Your task to perform on an android device: Search for the top rated book on goodreads. Image 0: 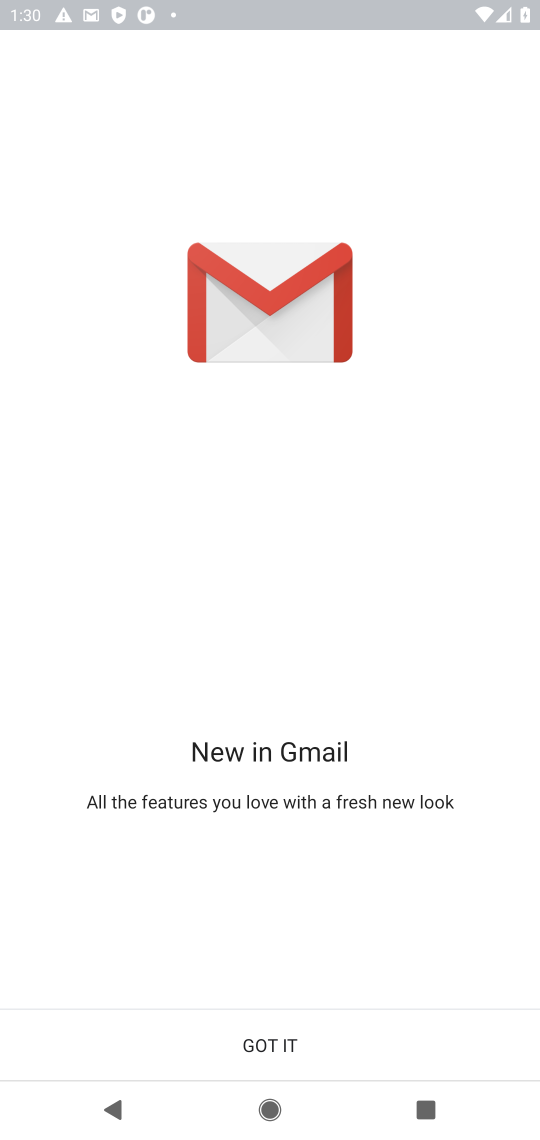
Step 0: press home button
Your task to perform on an android device: Search for the top rated book on goodreads. Image 1: 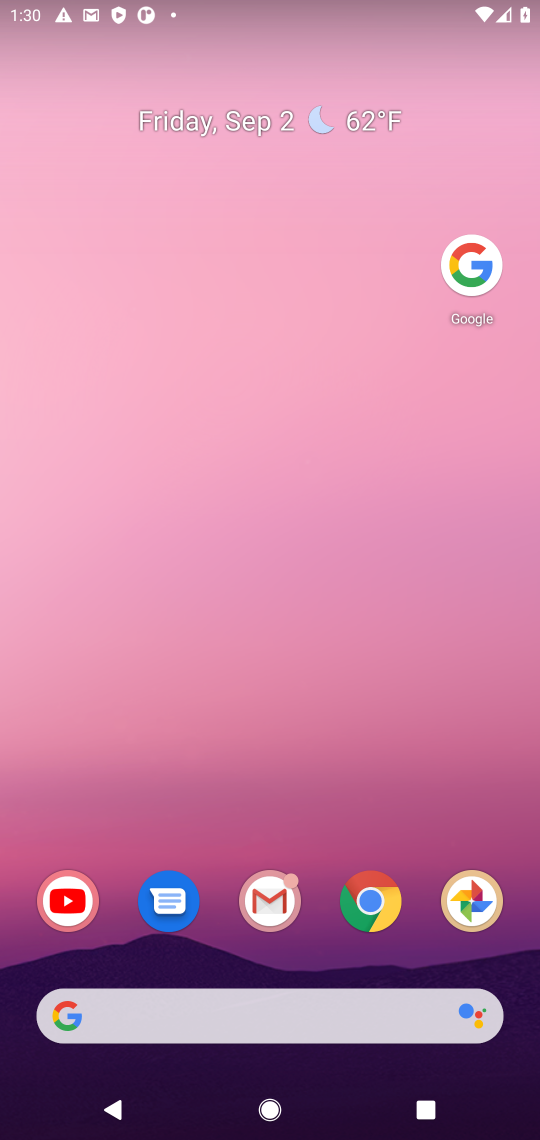
Step 1: drag from (230, 982) to (238, 456)
Your task to perform on an android device: Search for the top rated book on goodreads. Image 2: 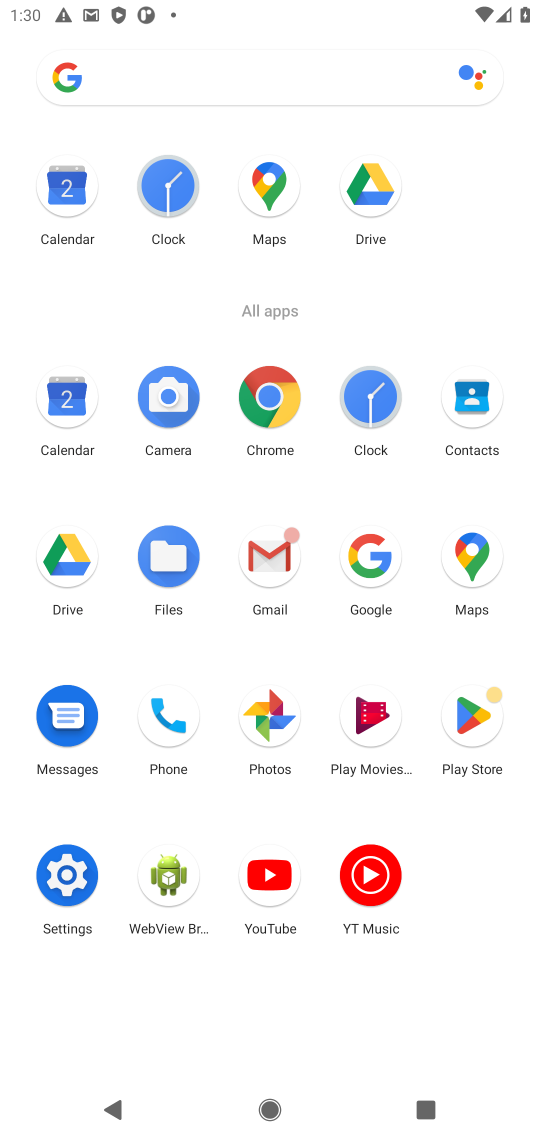
Step 2: click (361, 549)
Your task to perform on an android device: Search for the top rated book on goodreads. Image 3: 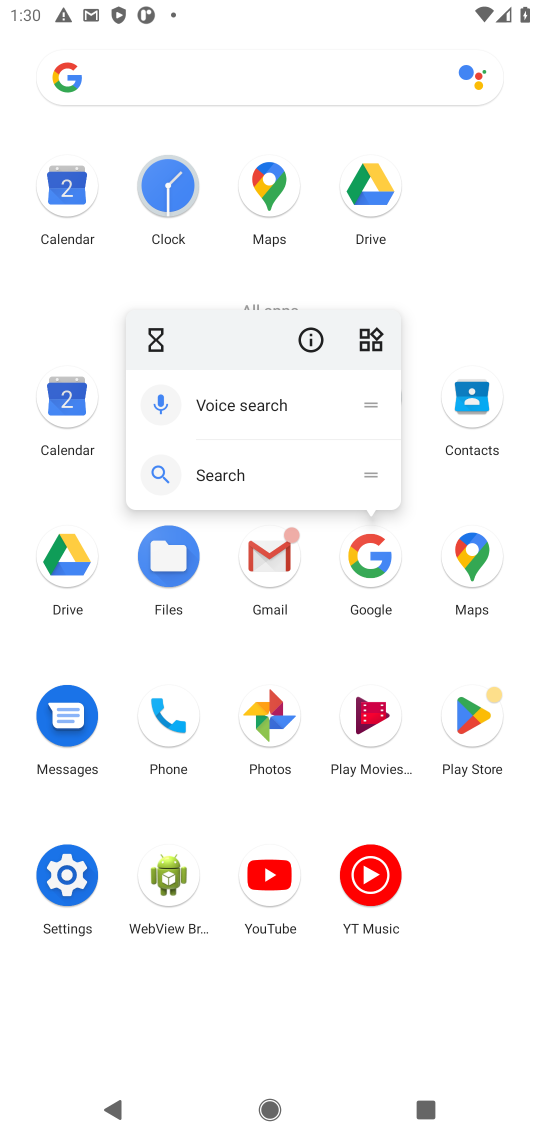
Step 3: click (358, 549)
Your task to perform on an android device: Search for the top rated book on goodreads. Image 4: 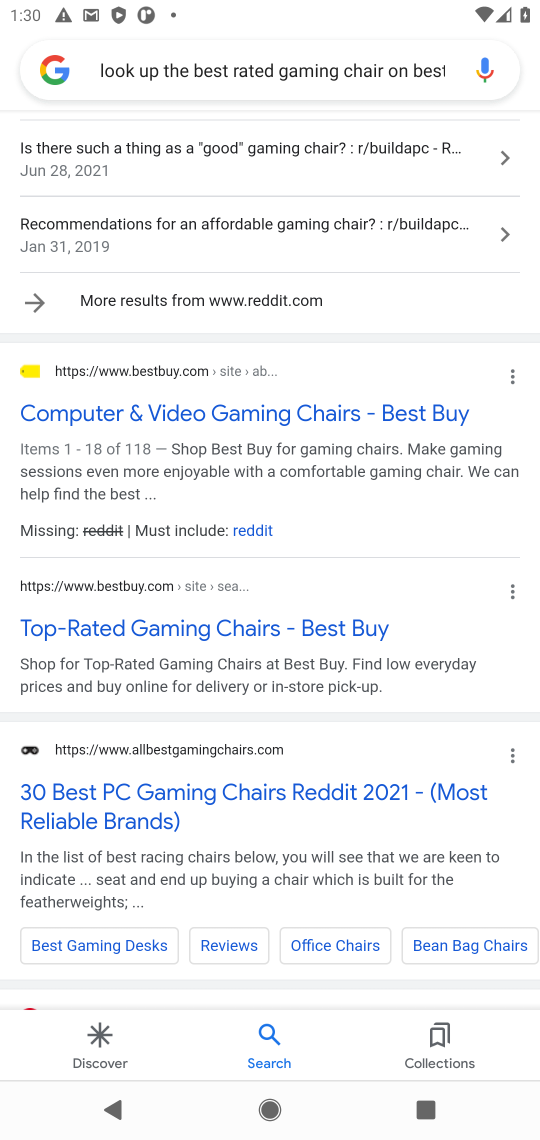
Step 4: drag from (289, 98) to (217, 1060)
Your task to perform on an android device: Search for the top rated book on goodreads. Image 5: 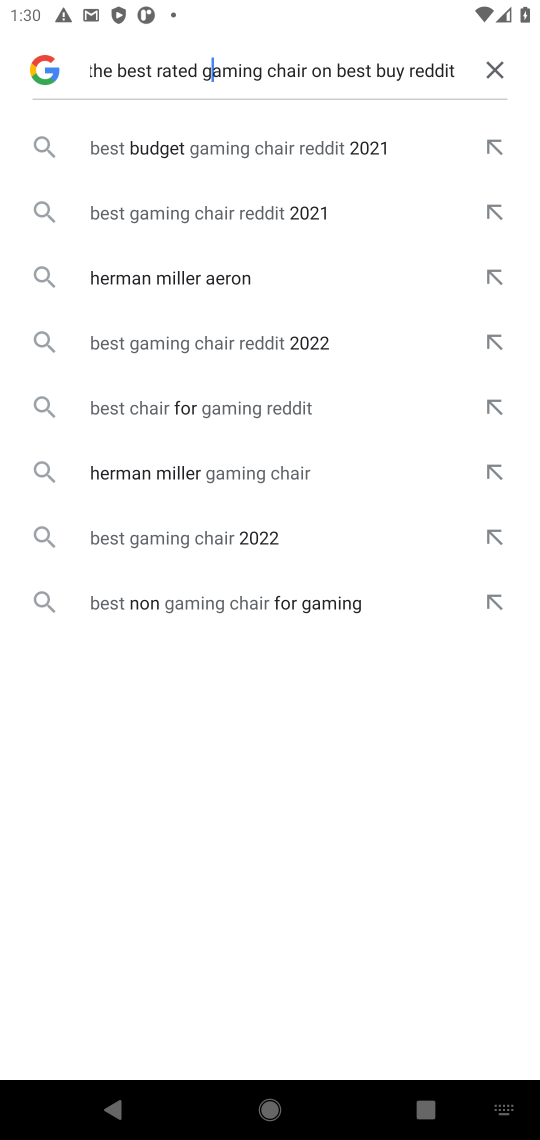
Step 5: click (501, 57)
Your task to perform on an android device: Search for the top rated book on goodreads. Image 6: 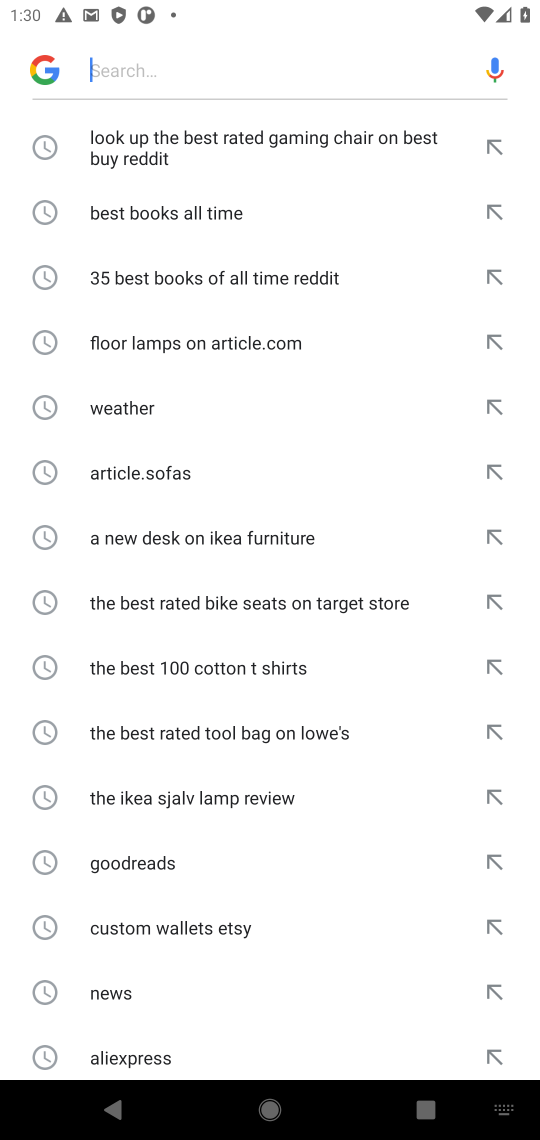
Step 6: click (204, 66)
Your task to perform on an android device: Search for the top rated book on goodreads. Image 7: 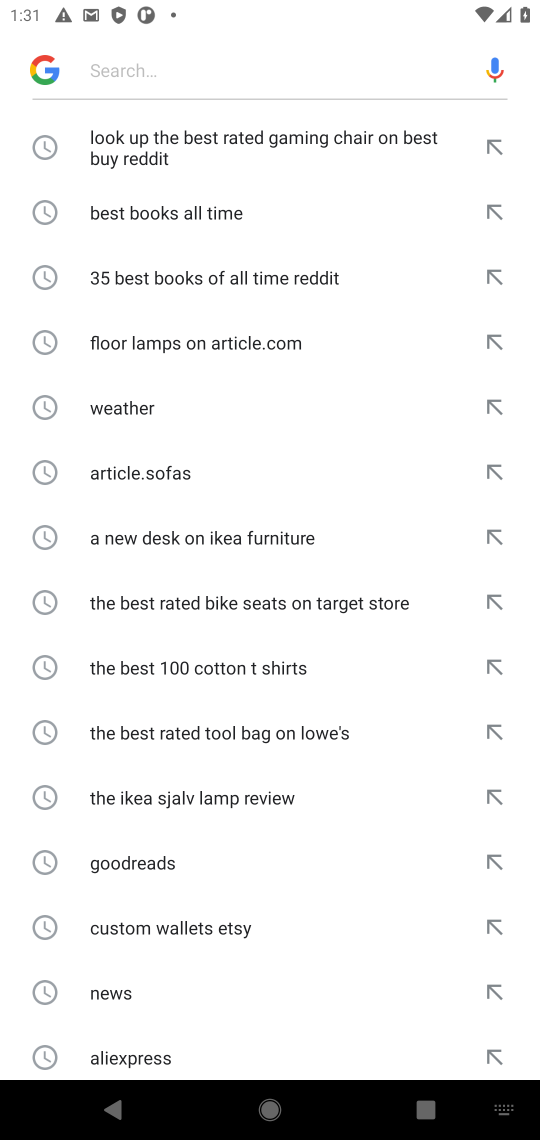
Step 7: type "the top rated book on goodreads "
Your task to perform on an android device: Search for the top rated book on goodreads. Image 8: 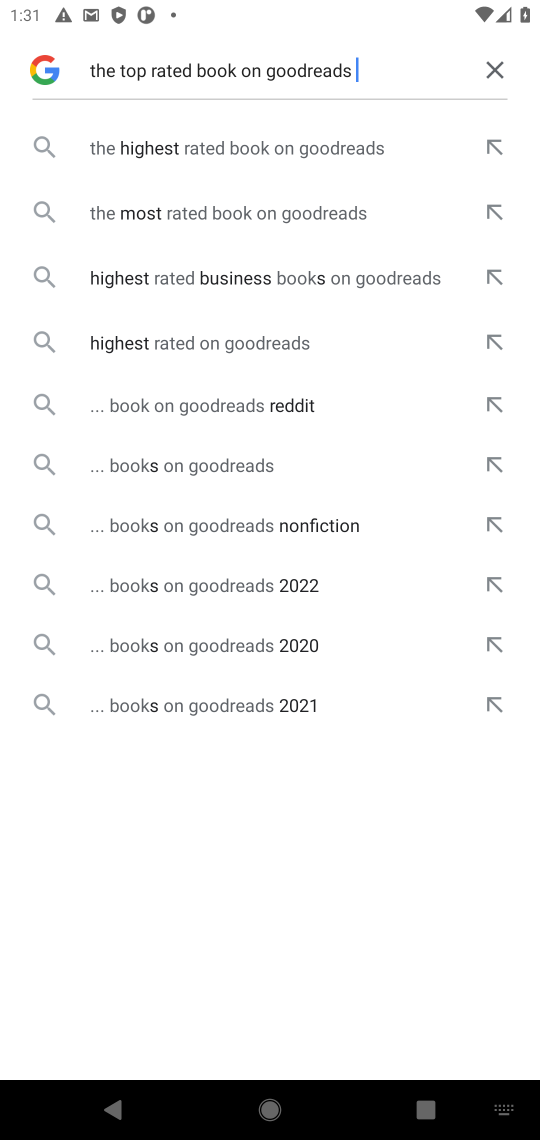
Step 8: click (275, 220)
Your task to perform on an android device: Search for the top rated book on goodreads. Image 9: 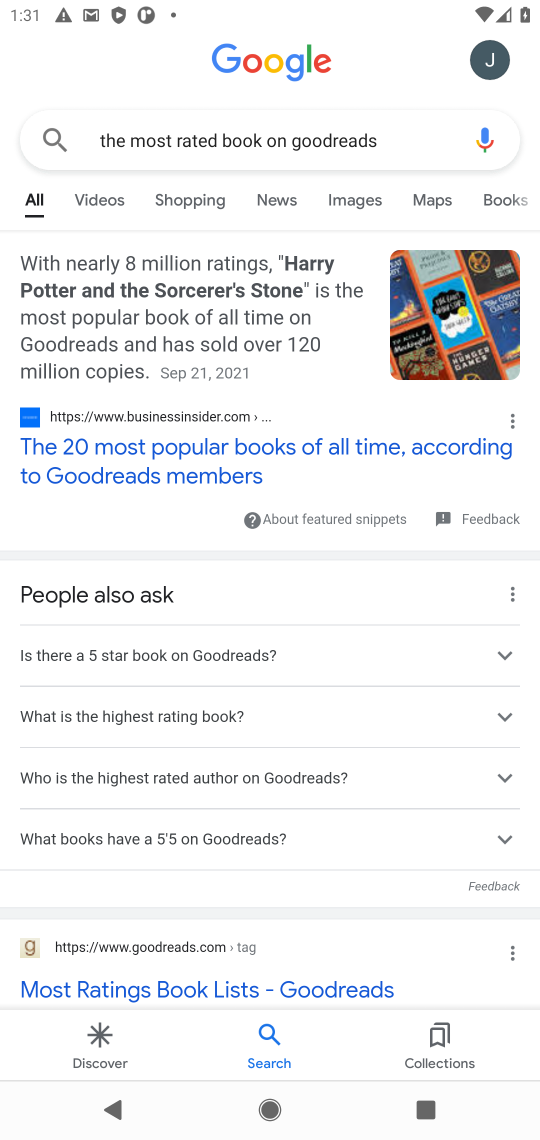
Step 9: drag from (213, 958) to (294, 302)
Your task to perform on an android device: Search for the top rated book on goodreads. Image 10: 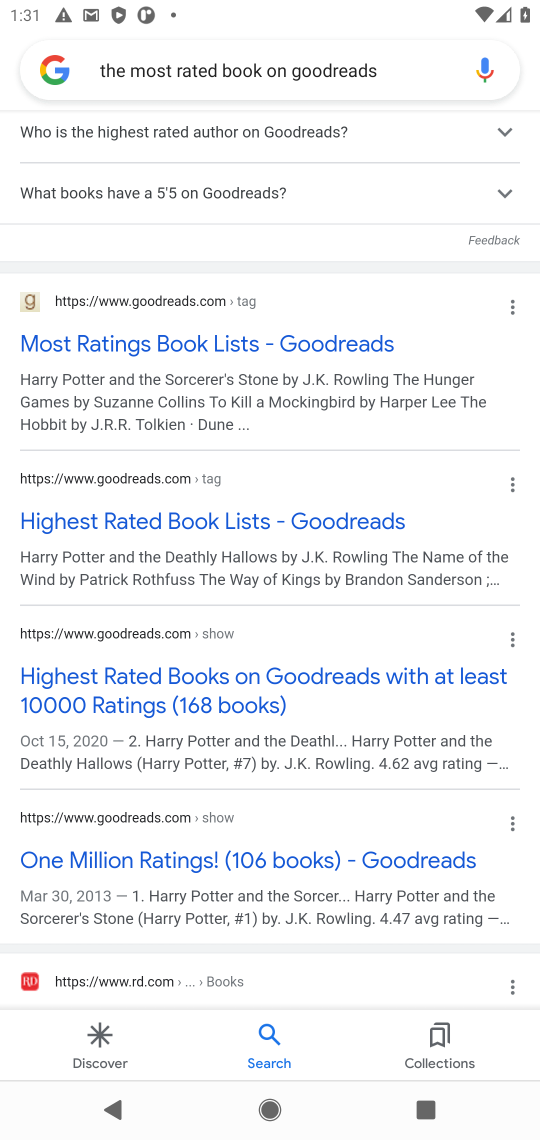
Step 10: click (273, 335)
Your task to perform on an android device: Search for the top rated book on goodreads. Image 11: 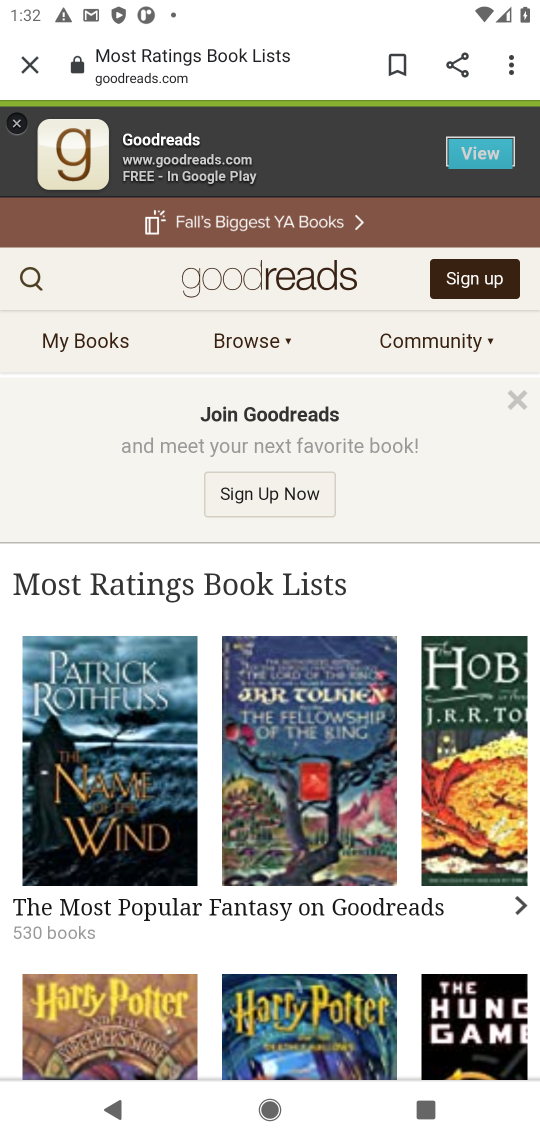
Step 11: click (17, 126)
Your task to perform on an android device: Search for the top rated book on goodreads. Image 12: 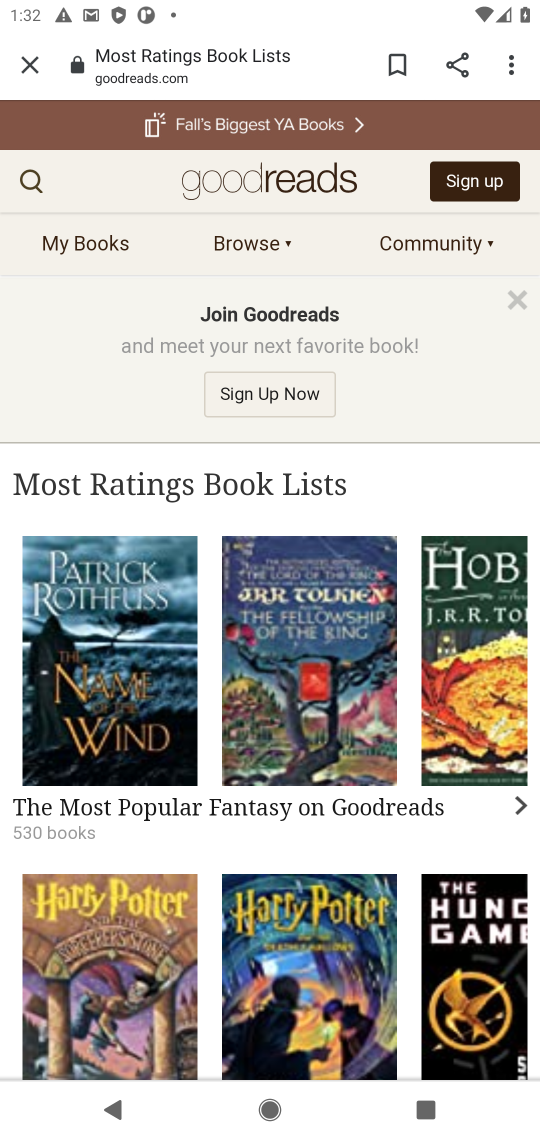
Step 12: task complete